Your task to perform on an android device: manage bookmarks in the chrome app Image 0: 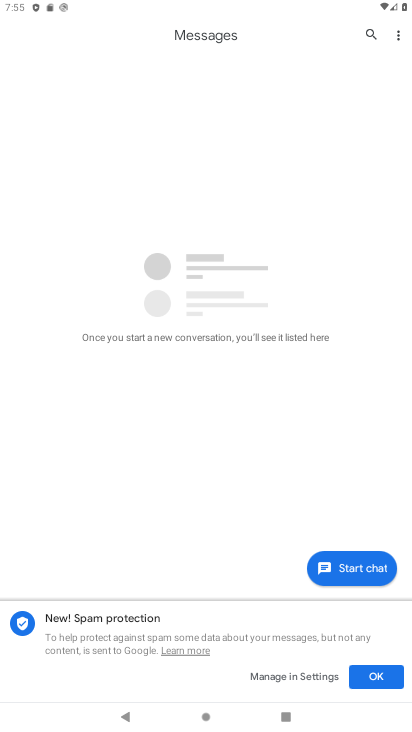
Step 0: press home button
Your task to perform on an android device: manage bookmarks in the chrome app Image 1: 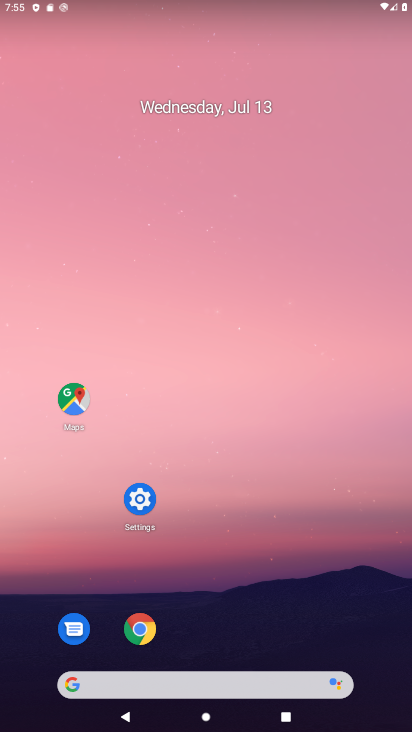
Step 1: click (142, 619)
Your task to perform on an android device: manage bookmarks in the chrome app Image 2: 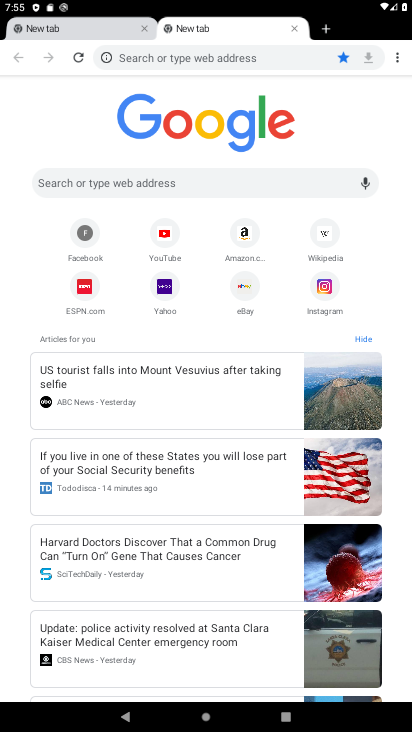
Step 2: click (394, 57)
Your task to perform on an android device: manage bookmarks in the chrome app Image 3: 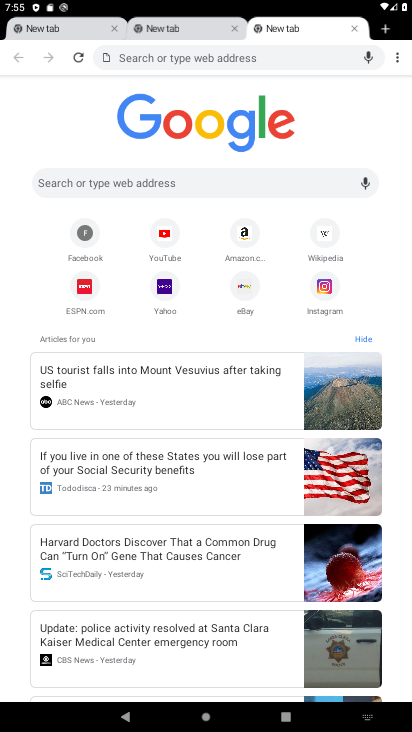
Step 3: click (396, 53)
Your task to perform on an android device: manage bookmarks in the chrome app Image 4: 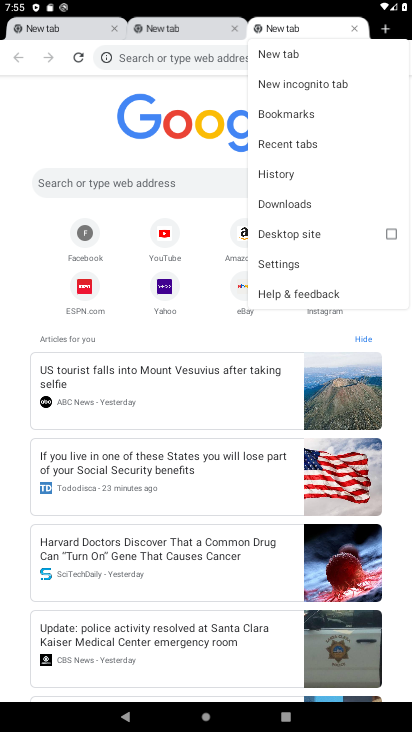
Step 4: click (285, 117)
Your task to perform on an android device: manage bookmarks in the chrome app Image 5: 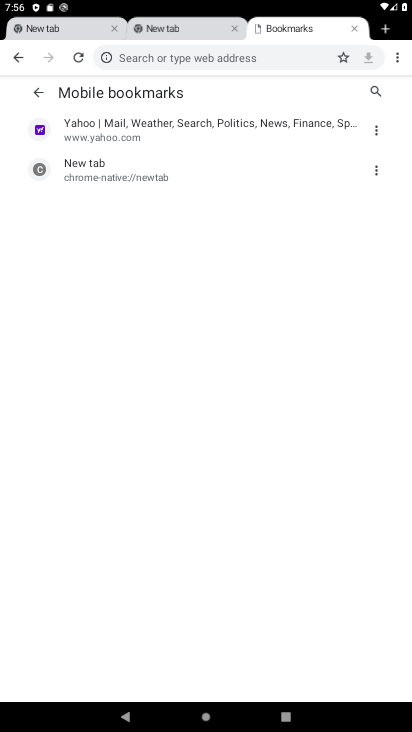
Step 5: click (374, 169)
Your task to perform on an android device: manage bookmarks in the chrome app Image 6: 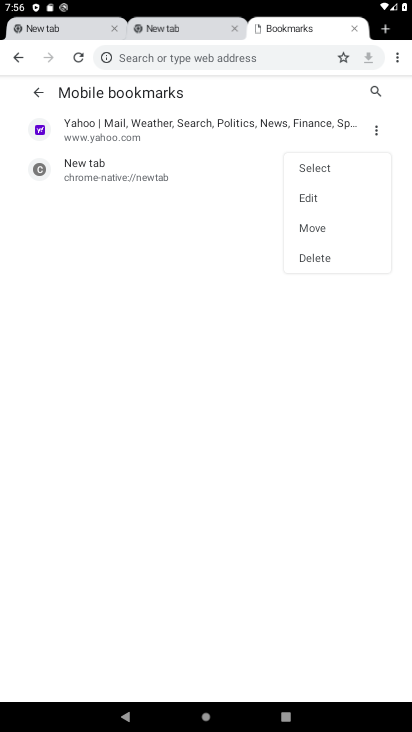
Step 6: click (304, 260)
Your task to perform on an android device: manage bookmarks in the chrome app Image 7: 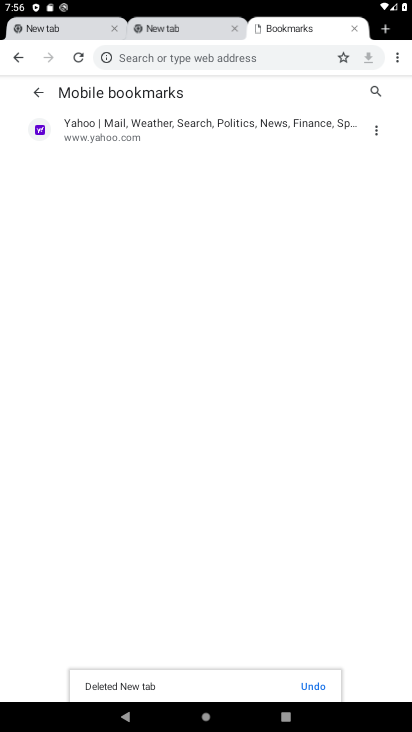
Step 7: task complete